Your task to perform on an android device: Go to wifi settings Image 0: 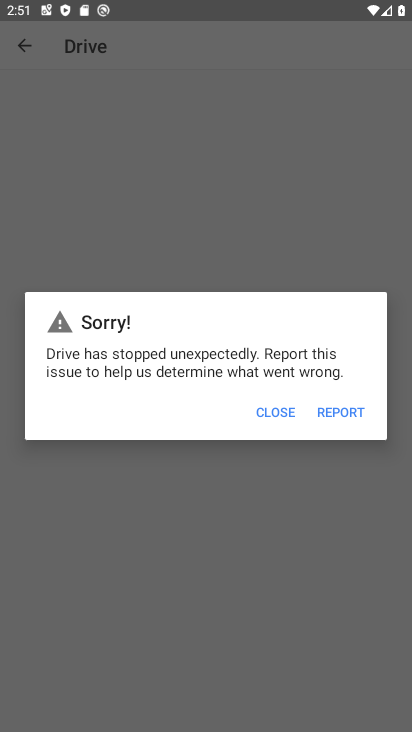
Step 0: drag from (217, 626) to (384, 317)
Your task to perform on an android device: Go to wifi settings Image 1: 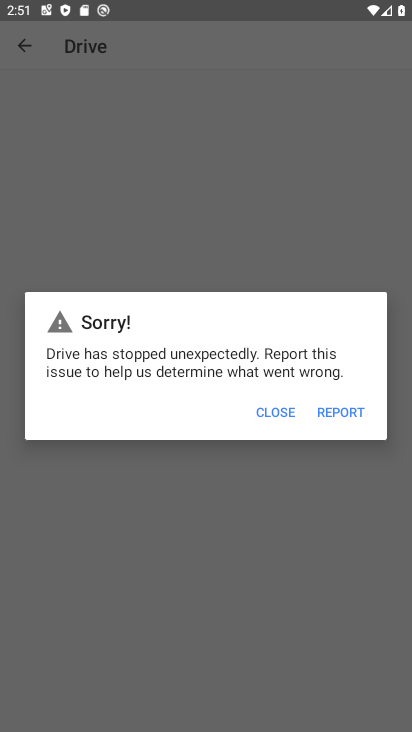
Step 1: press home button
Your task to perform on an android device: Go to wifi settings Image 2: 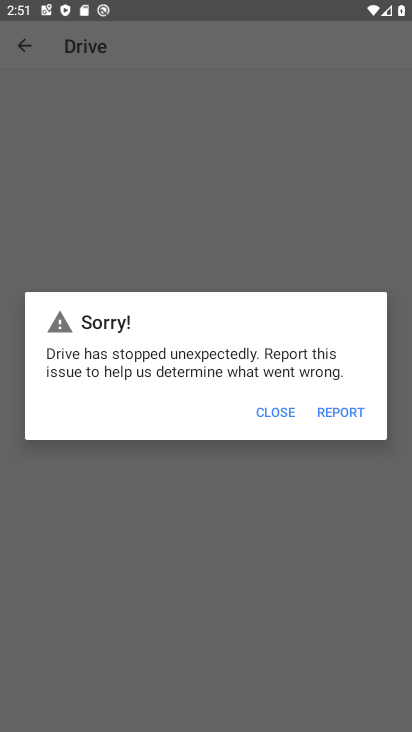
Step 2: drag from (384, 317) to (389, 80)
Your task to perform on an android device: Go to wifi settings Image 3: 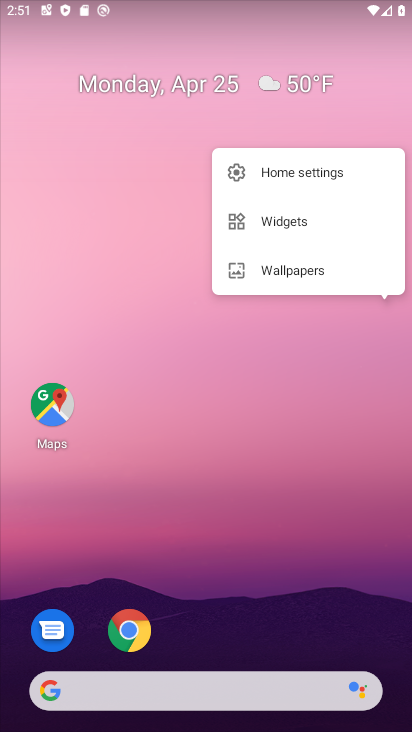
Step 3: drag from (199, 560) to (127, 141)
Your task to perform on an android device: Go to wifi settings Image 4: 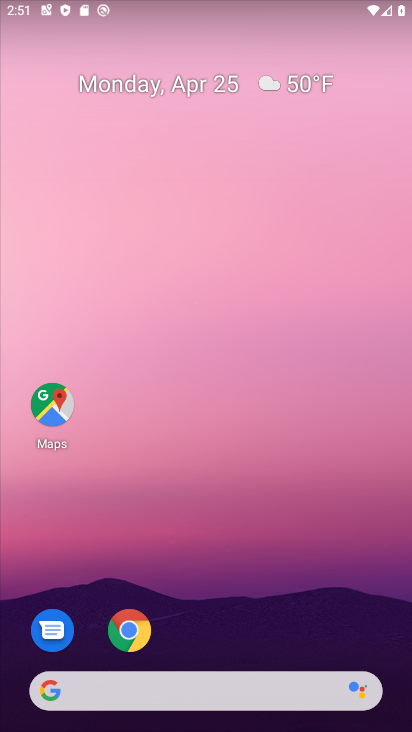
Step 4: drag from (255, 608) to (153, 93)
Your task to perform on an android device: Go to wifi settings Image 5: 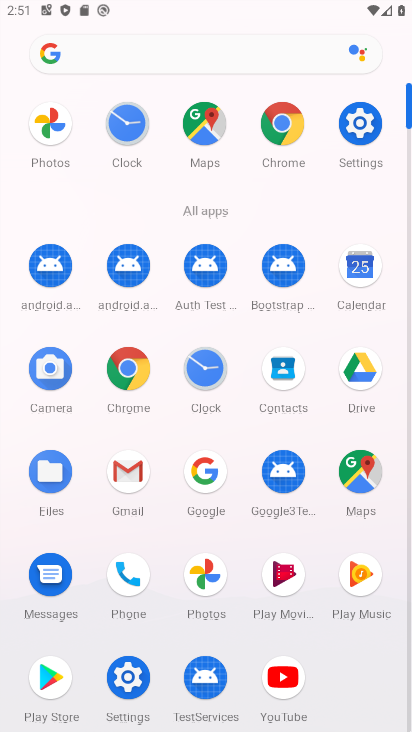
Step 5: click (362, 134)
Your task to perform on an android device: Go to wifi settings Image 6: 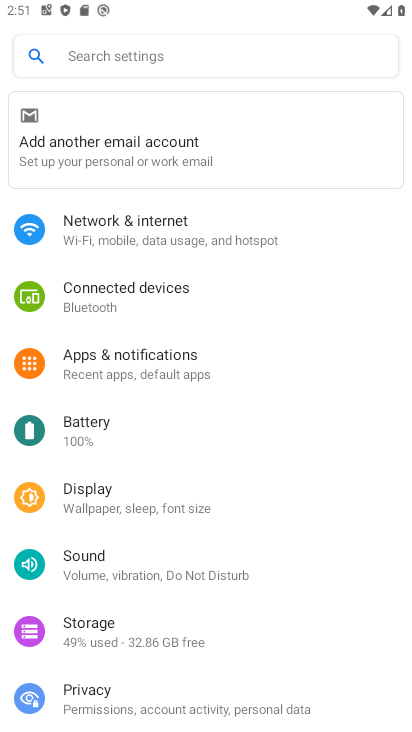
Step 6: click (127, 241)
Your task to perform on an android device: Go to wifi settings Image 7: 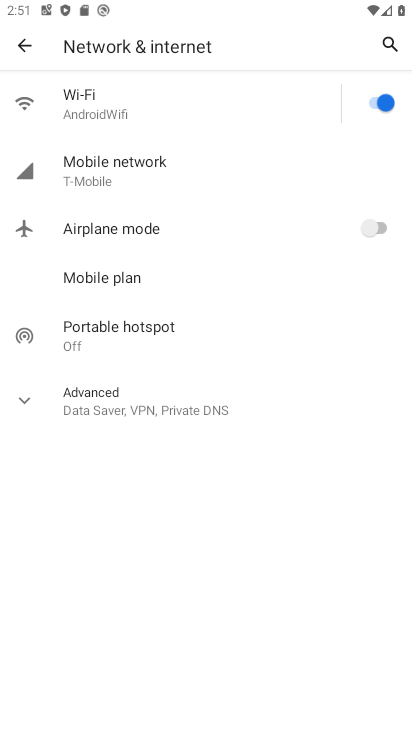
Step 7: click (130, 104)
Your task to perform on an android device: Go to wifi settings Image 8: 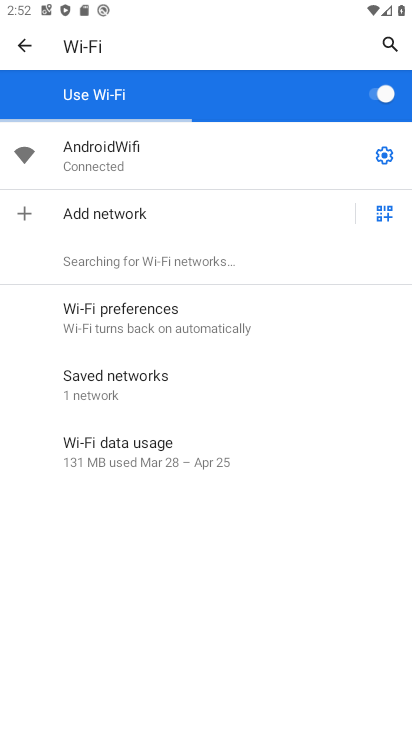
Step 8: task complete